Your task to perform on an android device: Show me popular games on the Play Store Image 0: 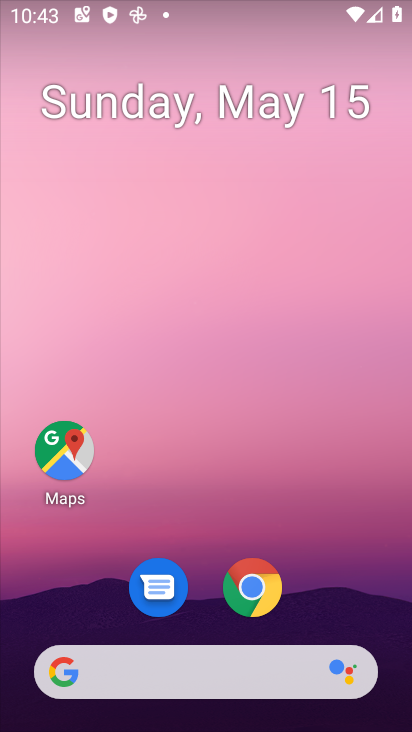
Step 0: drag from (378, 636) to (273, 51)
Your task to perform on an android device: Show me popular games on the Play Store Image 1: 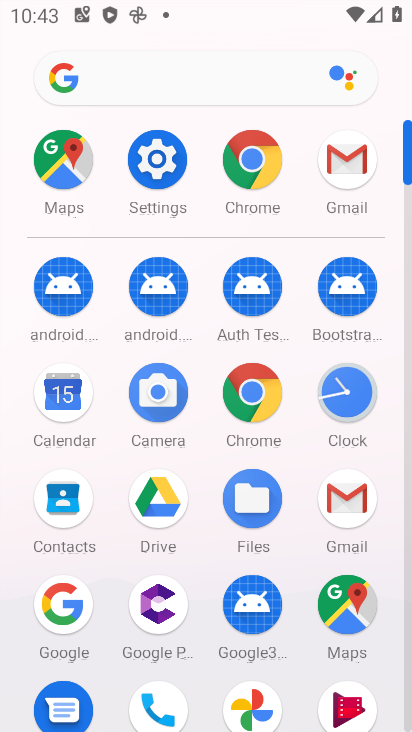
Step 1: drag from (219, 682) to (198, 248)
Your task to perform on an android device: Show me popular games on the Play Store Image 2: 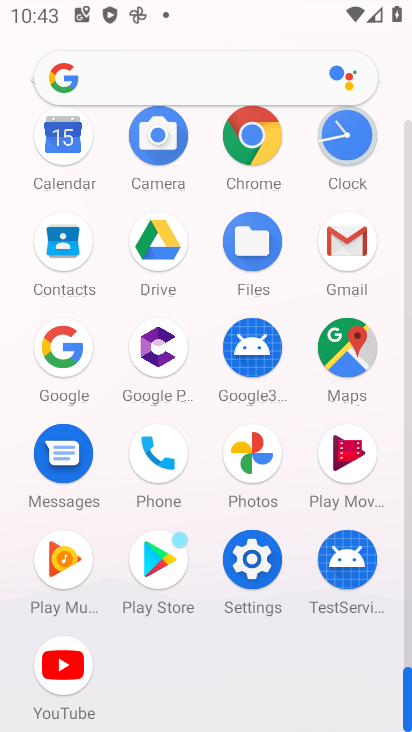
Step 2: click (171, 541)
Your task to perform on an android device: Show me popular games on the Play Store Image 3: 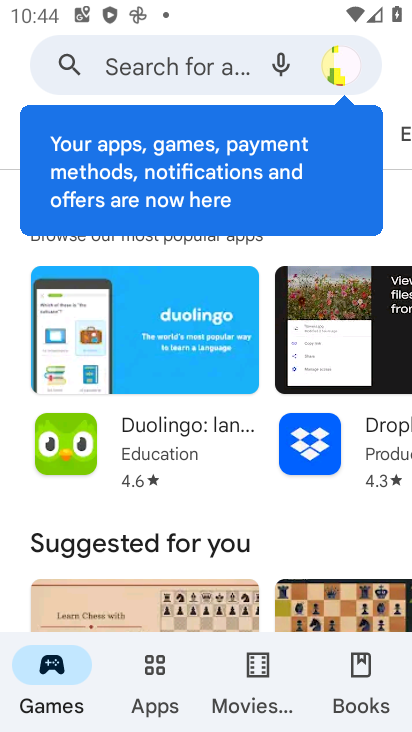
Step 3: task complete